Your task to perform on an android device: turn on data saver in the chrome app Image 0: 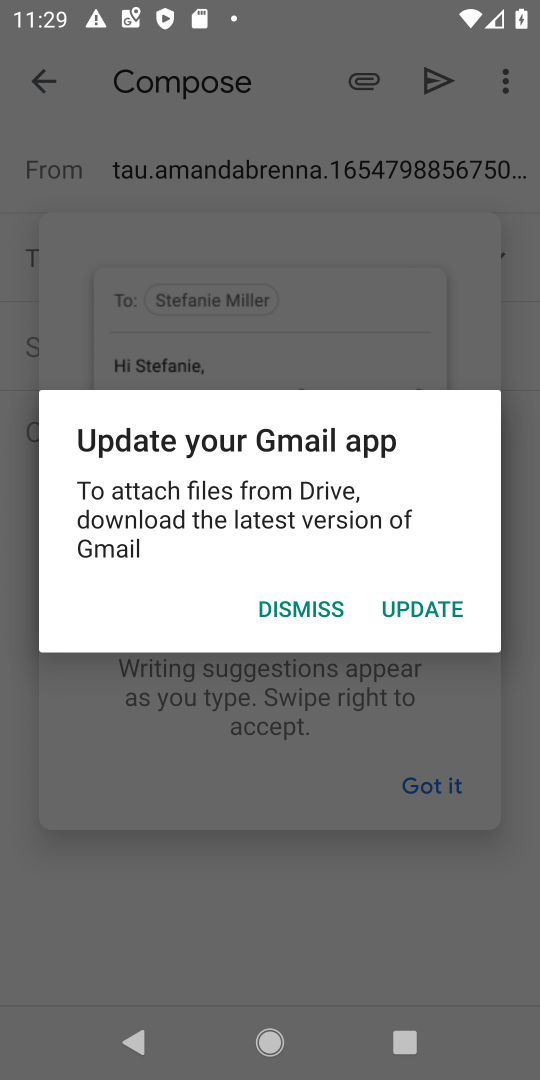
Step 0: press home button
Your task to perform on an android device: turn on data saver in the chrome app Image 1: 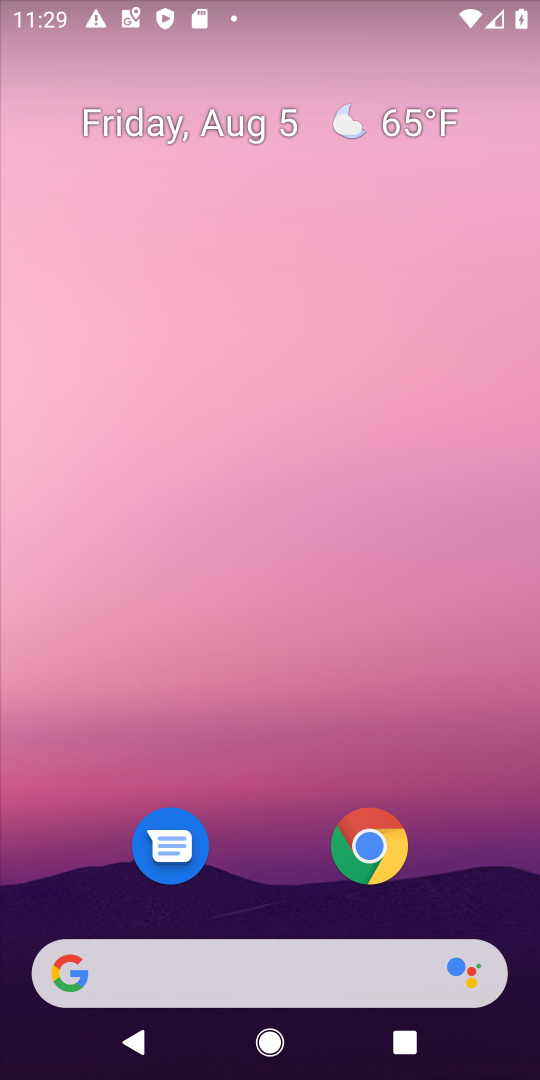
Step 1: click (377, 843)
Your task to perform on an android device: turn on data saver in the chrome app Image 2: 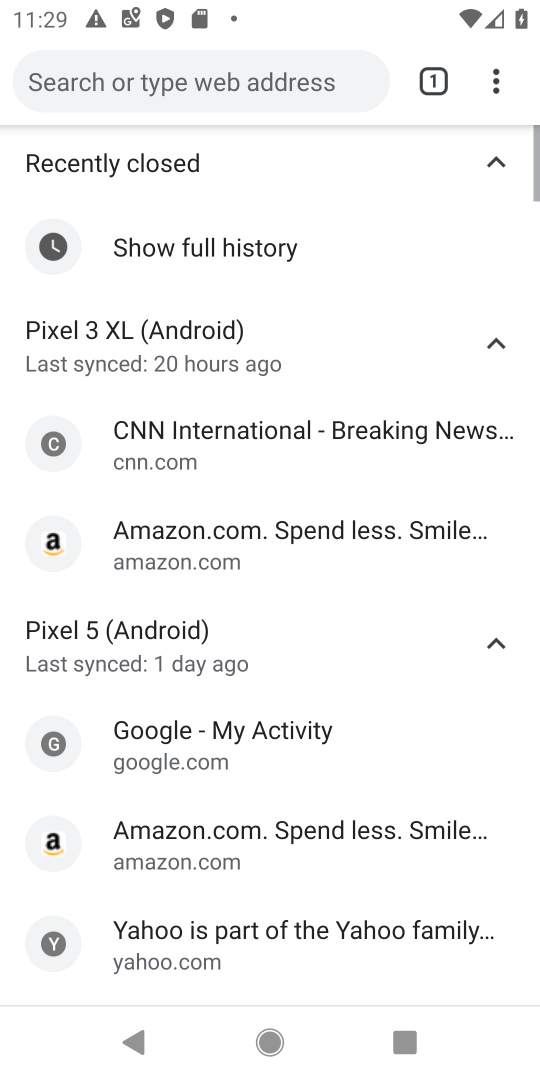
Step 2: click (496, 81)
Your task to perform on an android device: turn on data saver in the chrome app Image 3: 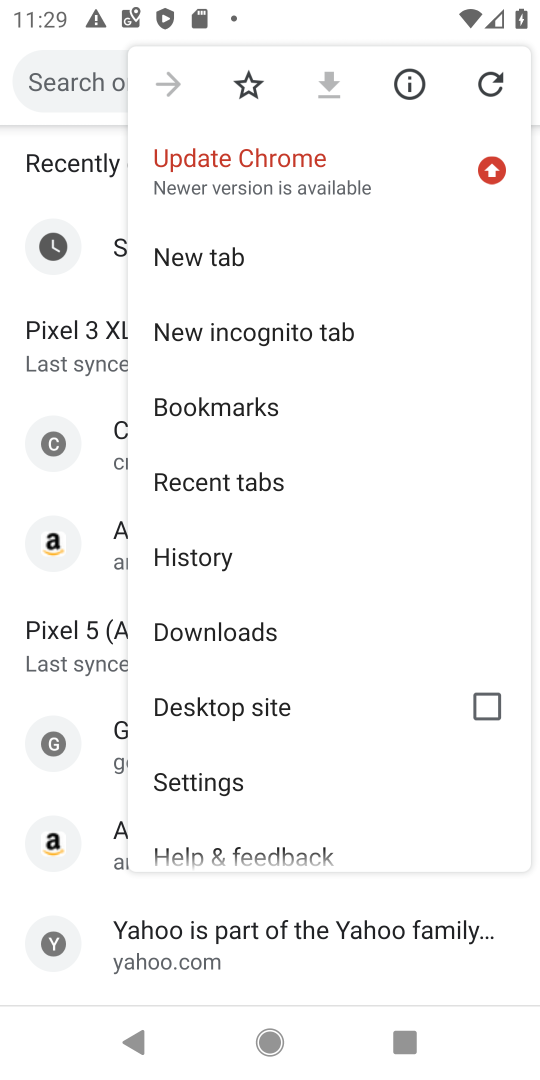
Step 3: click (235, 779)
Your task to perform on an android device: turn on data saver in the chrome app Image 4: 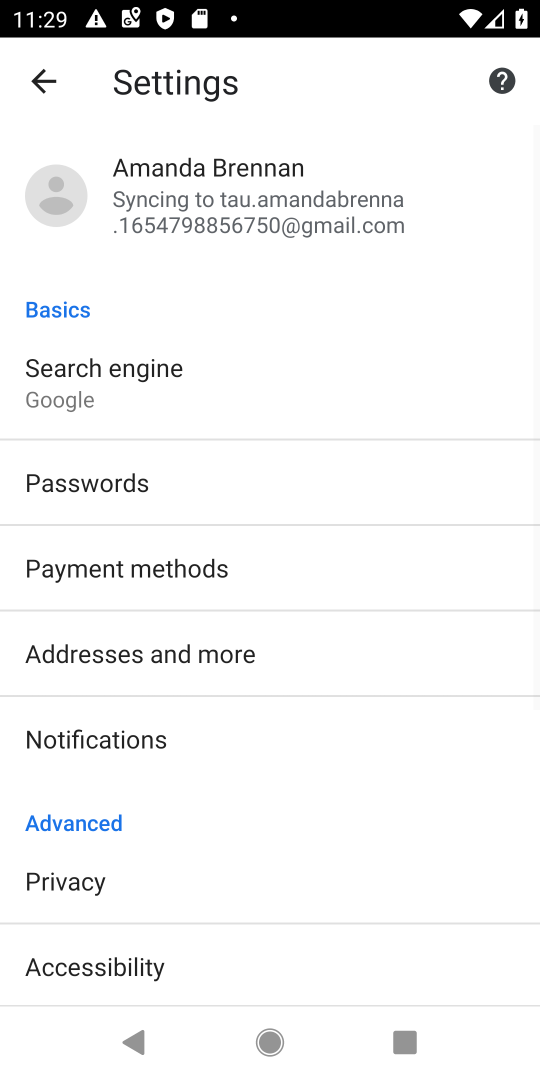
Step 4: drag from (246, 772) to (344, 4)
Your task to perform on an android device: turn on data saver in the chrome app Image 5: 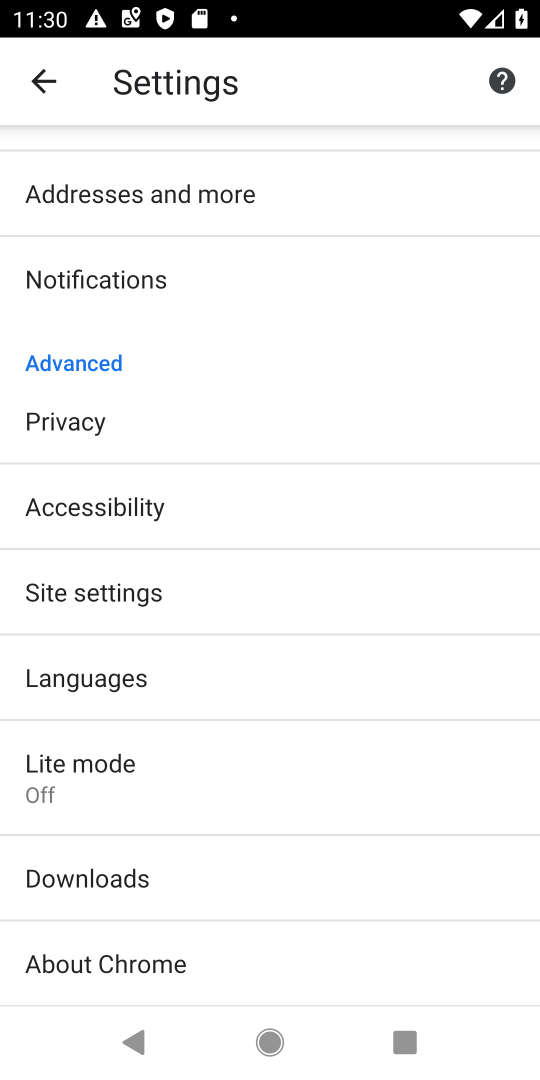
Step 5: click (188, 787)
Your task to perform on an android device: turn on data saver in the chrome app Image 6: 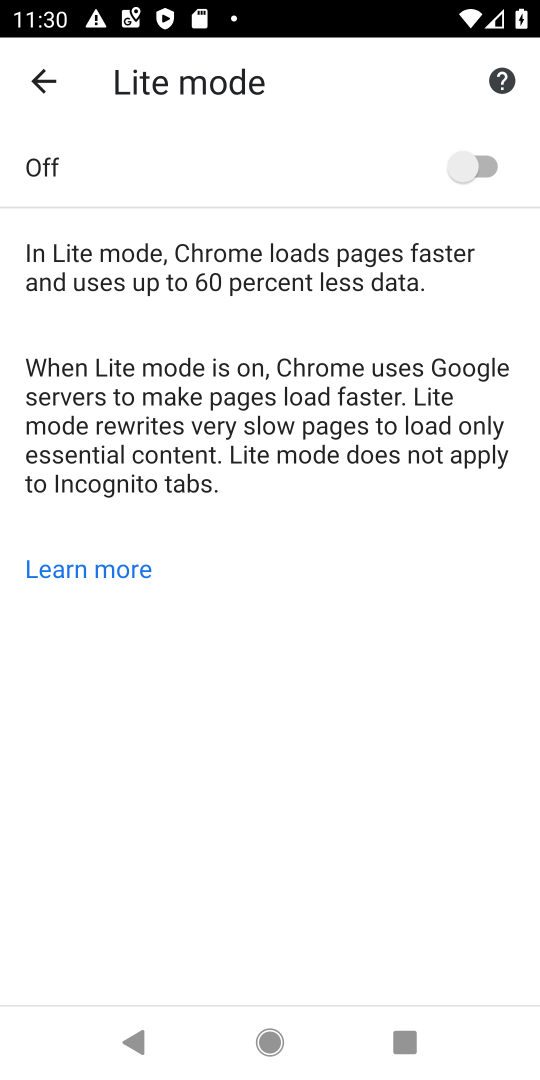
Step 6: click (479, 154)
Your task to perform on an android device: turn on data saver in the chrome app Image 7: 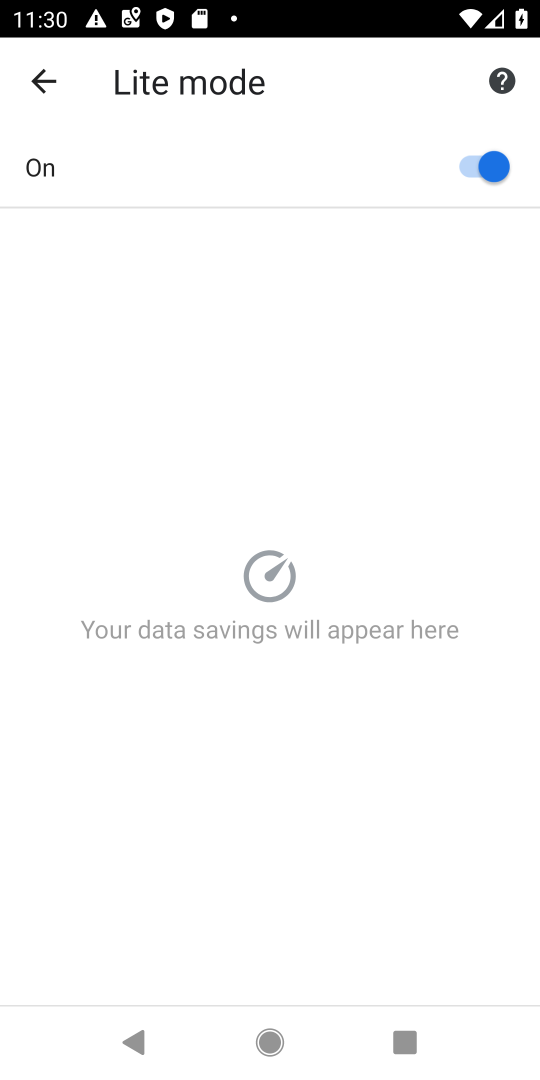
Step 7: task complete